Your task to perform on an android device: stop showing notifications on the lock screen Image 0: 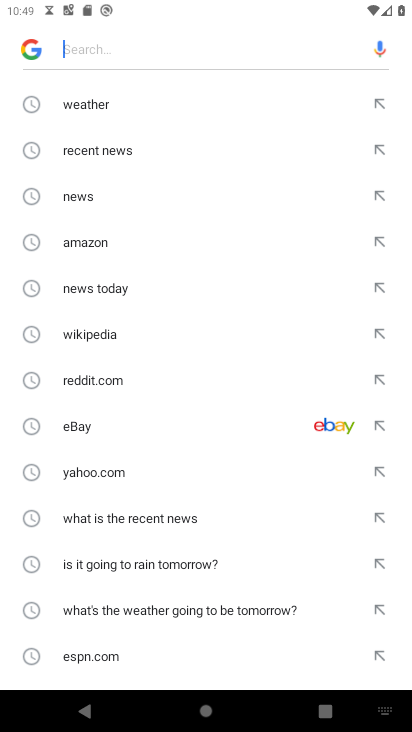
Step 0: press home button
Your task to perform on an android device: stop showing notifications on the lock screen Image 1: 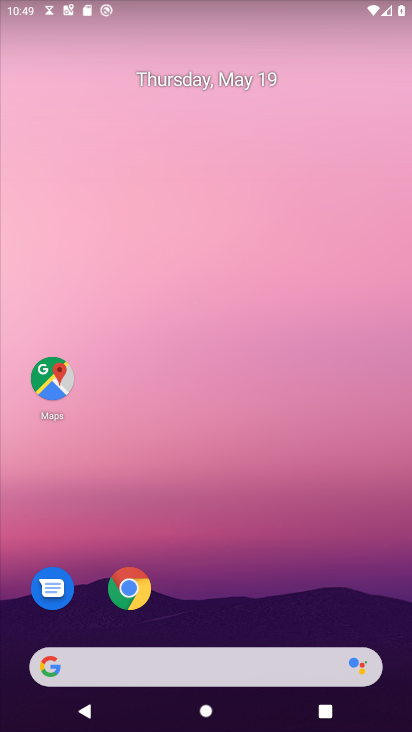
Step 1: drag from (277, 495) to (239, 3)
Your task to perform on an android device: stop showing notifications on the lock screen Image 2: 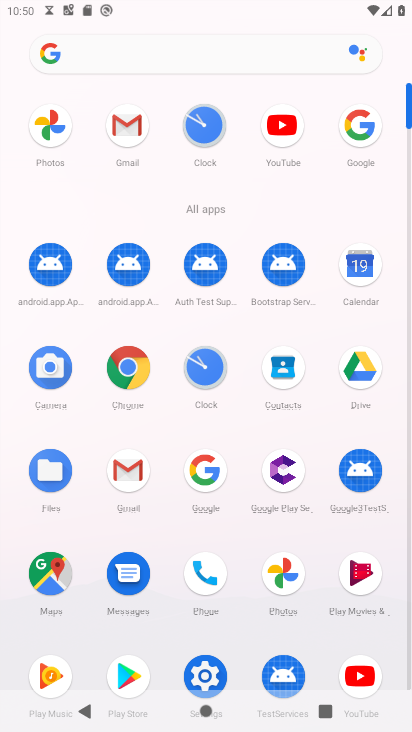
Step 2: click (208, 675)
Your task to perform on an android device: stop showing notifications on the lock screen Image 3: 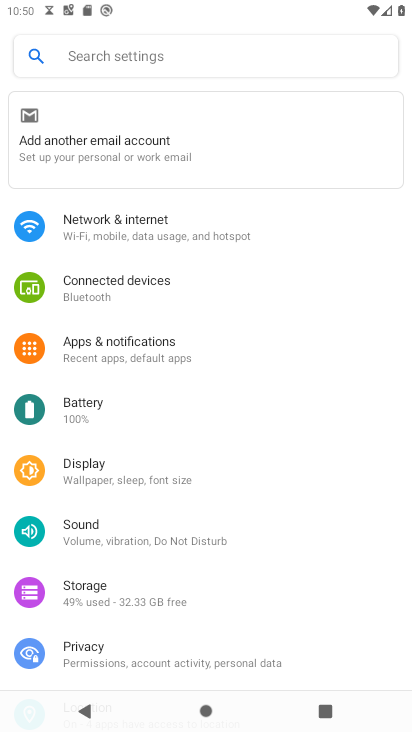
Step 3: click (139, 368)
Your task to perform on an android device: stop showing notifications on the lock screen Image 4: 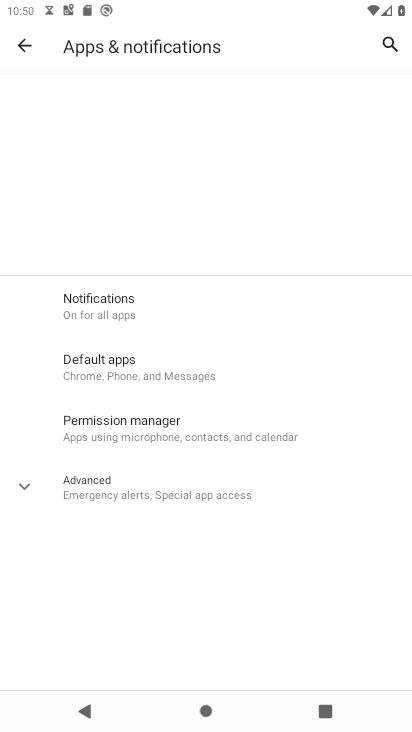
Step 4: click (156, 313)
Your task to perform on an android device: stop showing notifications on the lock screen Image 5: 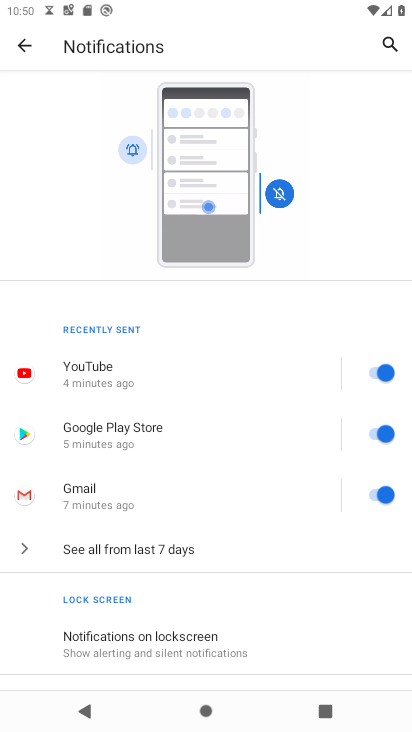
Step 5: click (182, 644)
Your task to perform on an android device: stop showing notifications on the lock screen Image 6: 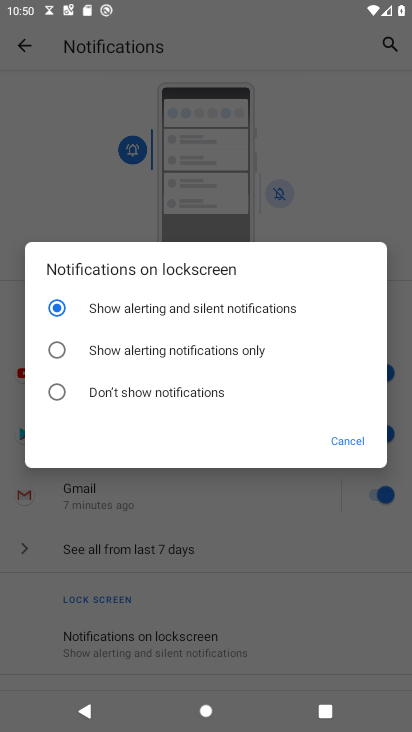
Step 6: click (141, 399)
Your task to perform on an android device: stop showing notifications on the lock screen Image 7: 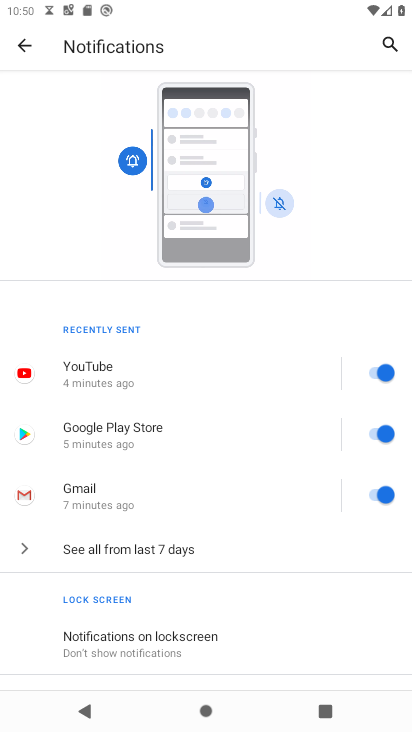
Step 7: task complete